Your task to perform on an android device: star an email in the gmail app Image 0: 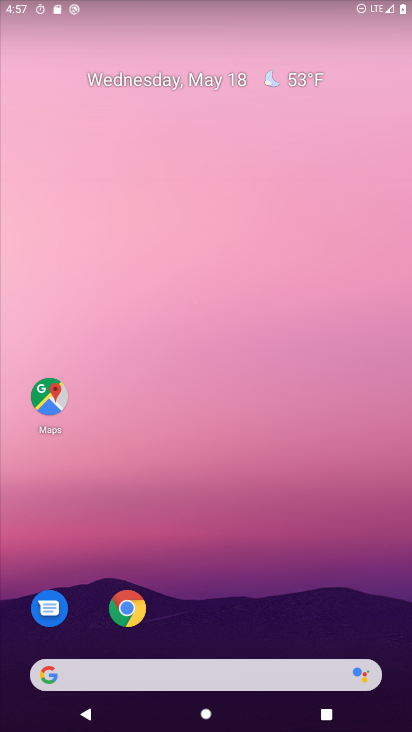
Step 0: drag from (215, 662) to (310, 3)
Your task to perform on an android device: star an email in the gmail app Image 1: 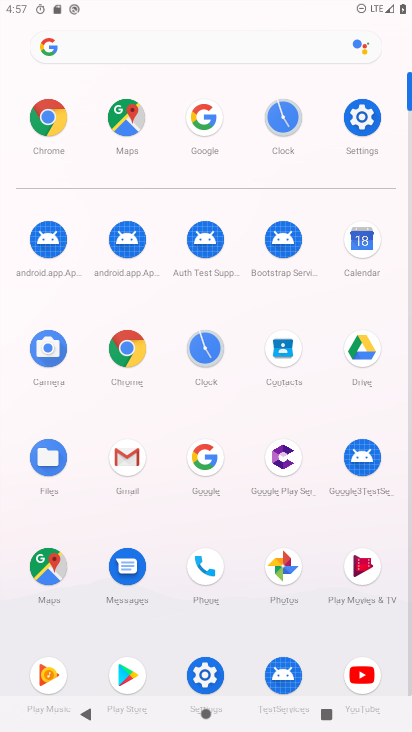
Step 1: click (104, 448)
Your task to perform on an android device: star an email in the gmail app Image 2: 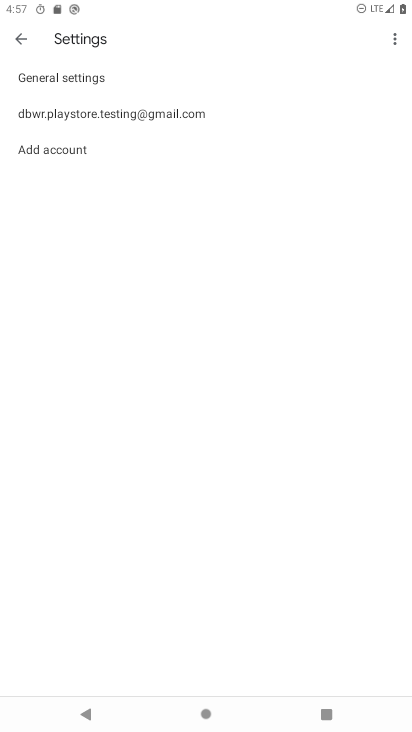
Step 2: task complete